Your task to perform on an android device: See recent photos Image 0: 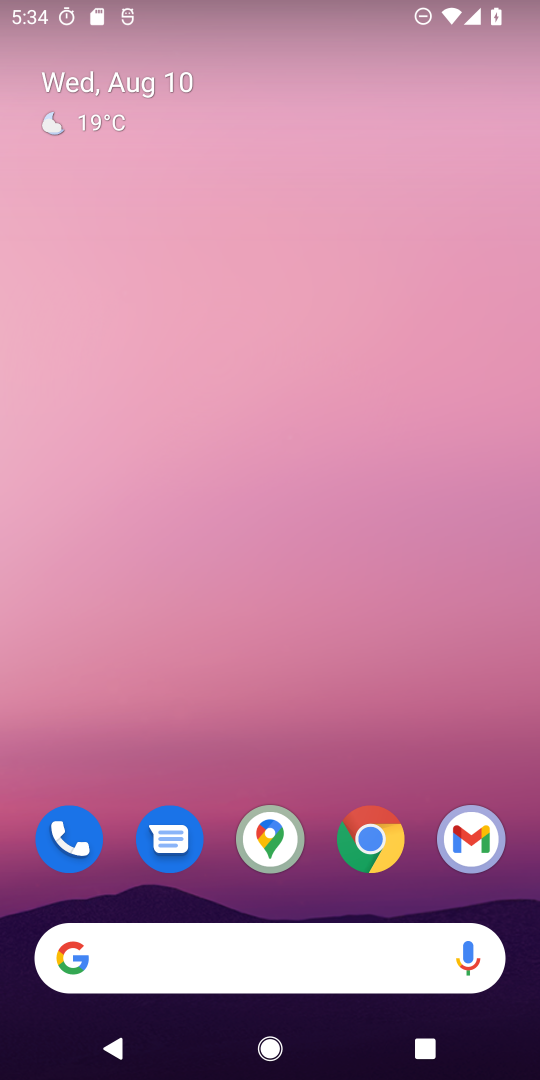
Step 0: drag from (34, 1009) to (332, 137)
Your task to perform on an android device: See recent photos Image 1: 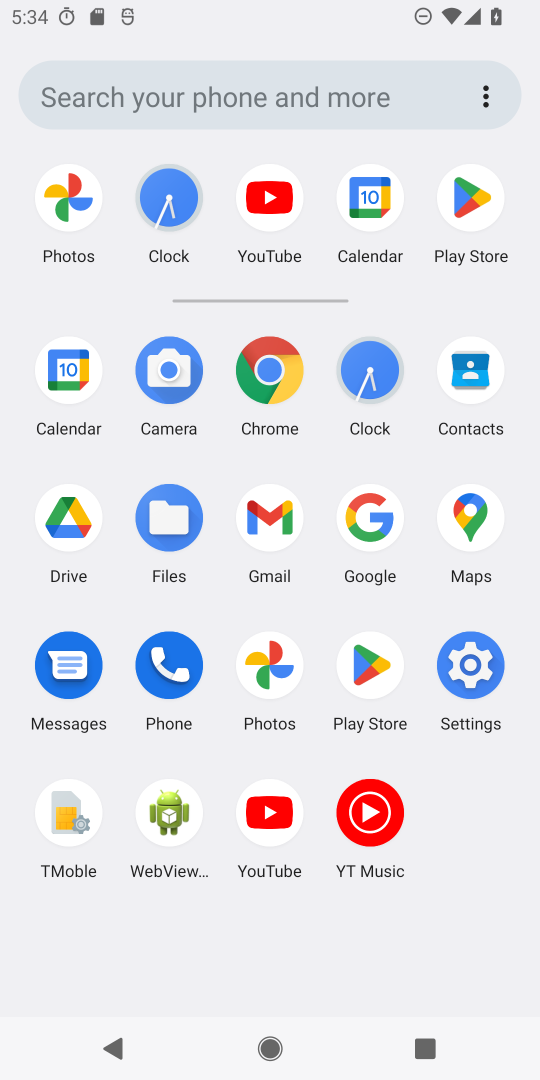
Step 1: click (267, 675)
Your task to perform on an android device: See recent photos Image 2: 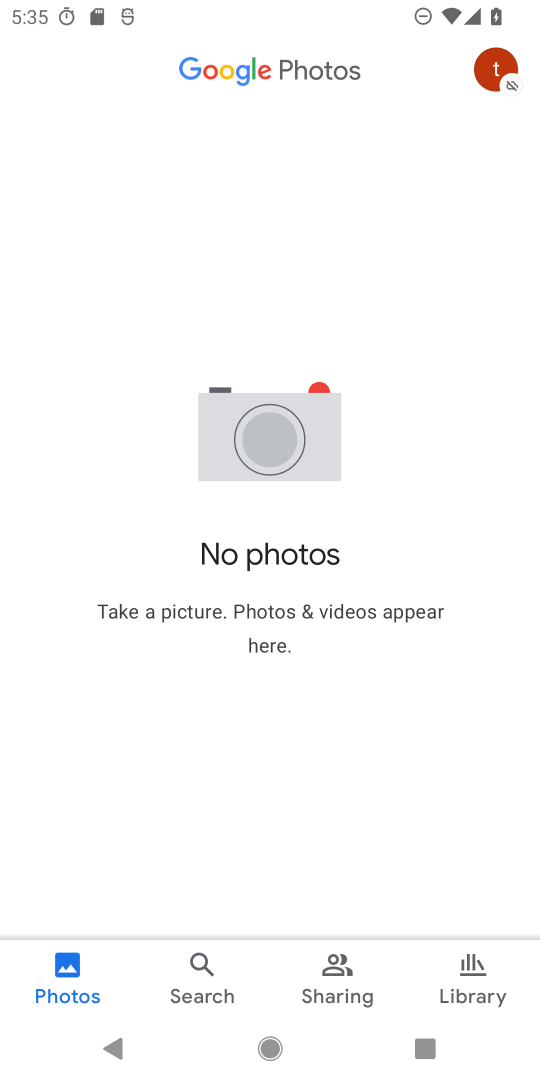
Step 2: task complete